Your task to perform on an android device: turn pop-ups on in chrome Image 0: 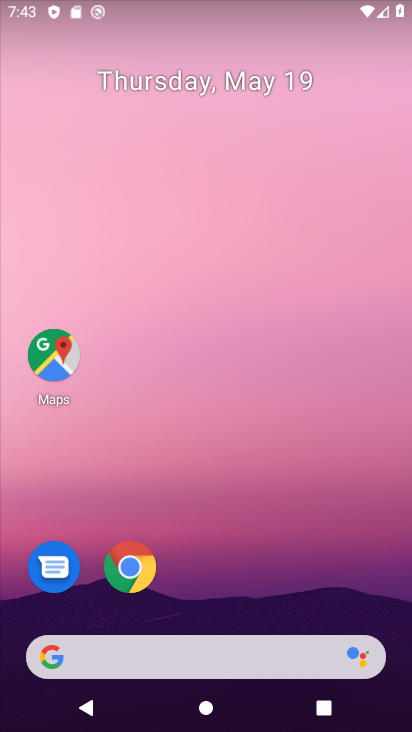
Step 0: drag from (199, 628) to (172, 83)
Your task to perform on an android device: turn pop-ups on in chrome Image 1: 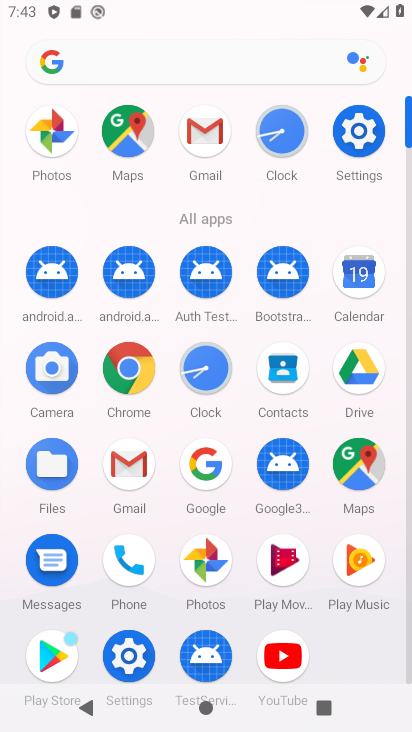
Step 1: click (126, 369)
Your task to perform on an android device: turn pop-ups on in chrome Image 2: 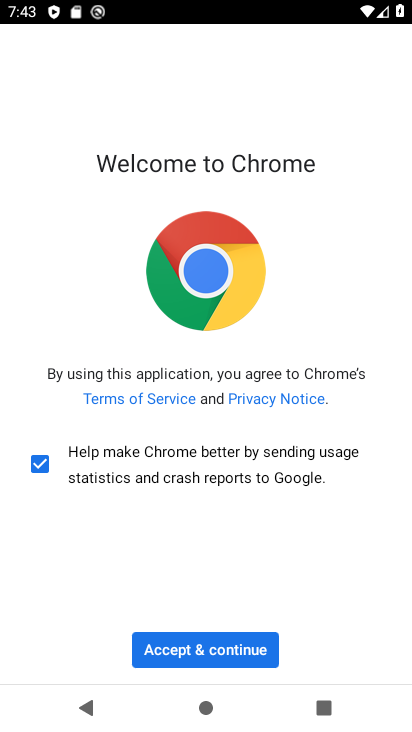
Step 2: click (249, 647)
Your task to perform on an android device: turn pop-ups on in chrome Image 3: 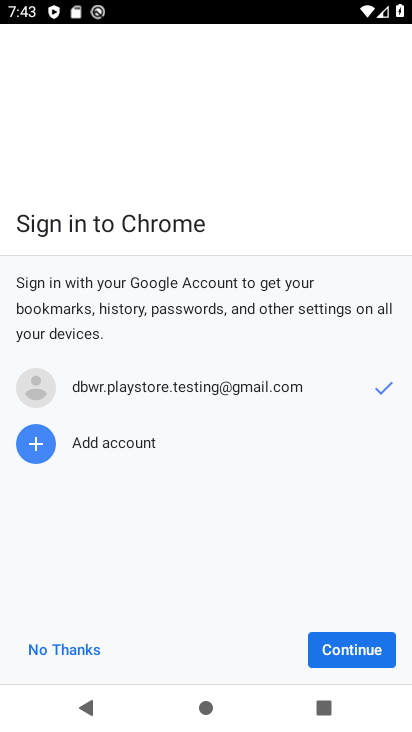
Step 3: click (336, 645)
Your task to perform on an android device: turn pop-ups on in chrome Image 4: 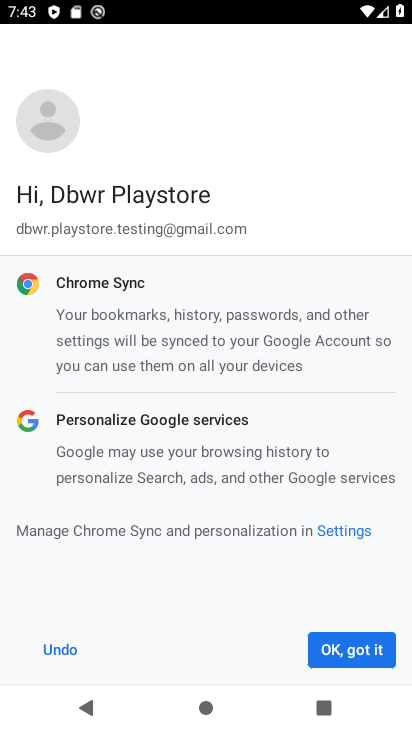
Step 4: click (340, 646)
Your task to perform on an android device: turn pop-ups on in chrome Image 5: 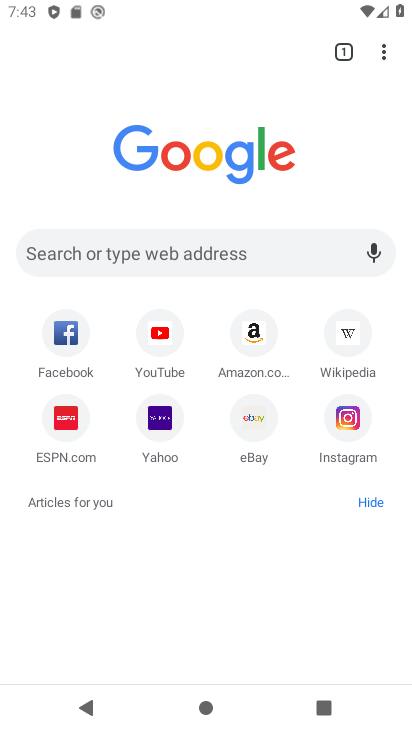
Step 5: click (384, 51)
Your task to perform on an android device: turn pop-ups on in chrome Image 6: 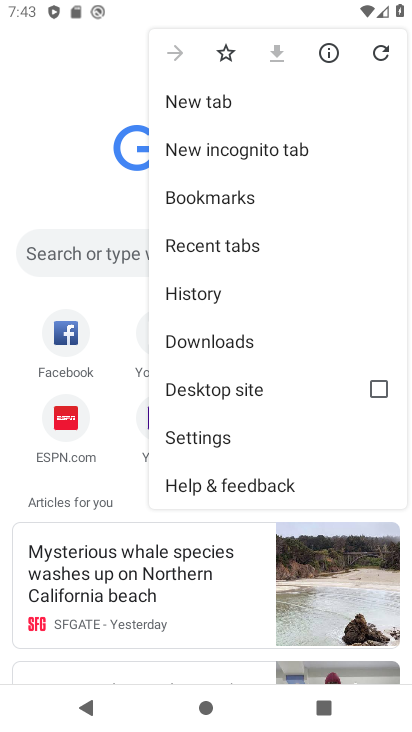
Step 6: drag from (385, 52) to (194, 431)
Your task to perform on an android device: turn pop-ups on in chrome Image 7: 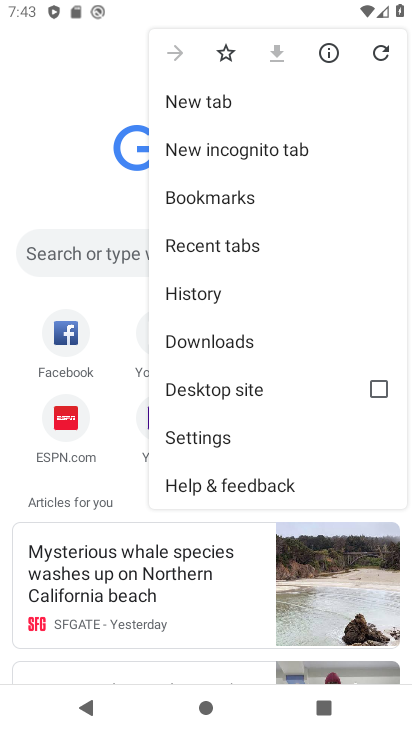
Step 7: click (184, 440)
Your task to perform on an android device: turn pop-ups on in chrome Image 8: 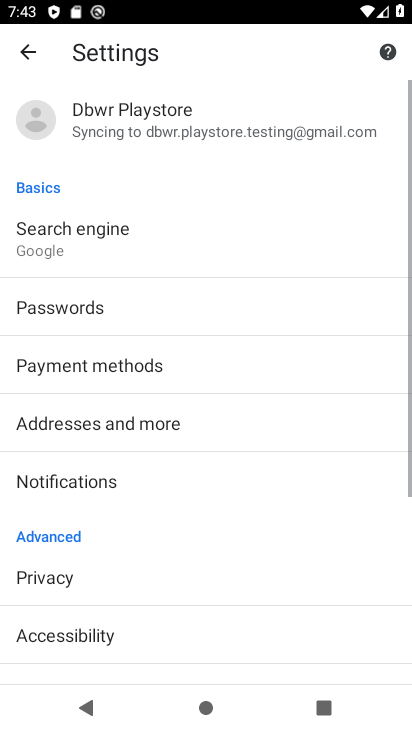
Step 8: drag from (197, 497) to (170, 3)
Your task to perform on an android device: turn pop-ups on in chrome Image 9: 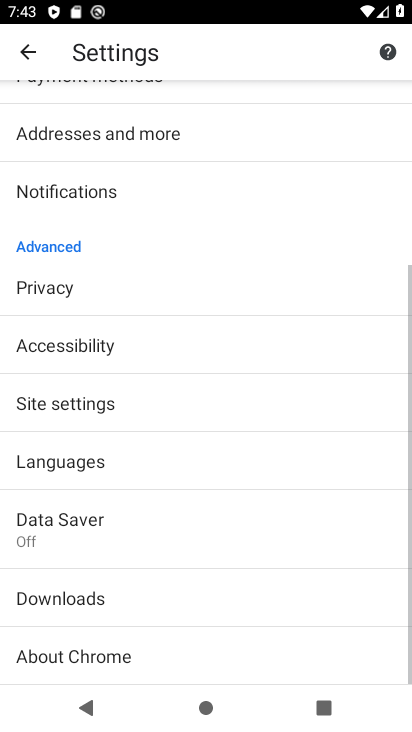
Step 9: click (74, 409)
Your task to perform on an android device: turn pop-ups on in chrome Image 10: 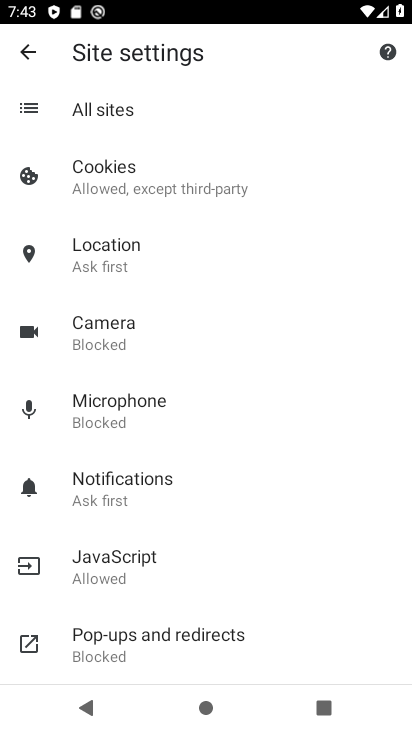
Step 10: click (155, 638)
Your task to perform on an android device: turn pop-ups on in chrome Image 11: 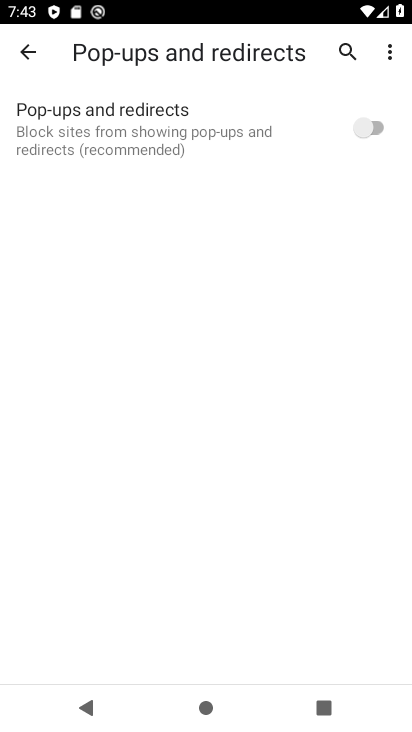
Step 11: click (366, 129)
Your task to perform on an android device: turn pop-ups on in chrome Image 12: 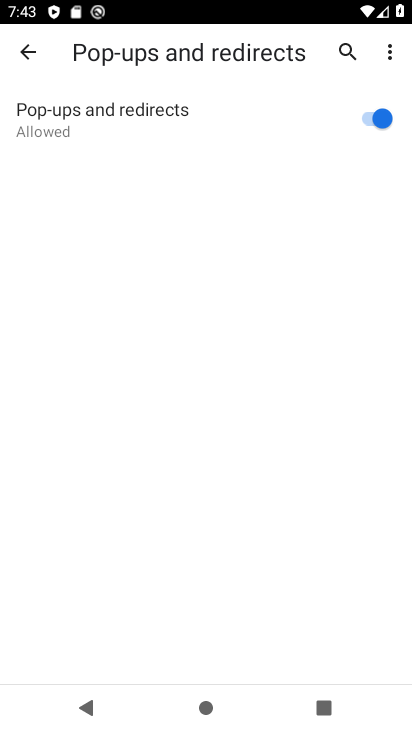
Step 12: task complete